Your task to perform on an android device: add a contact in the contacts app Image 0: 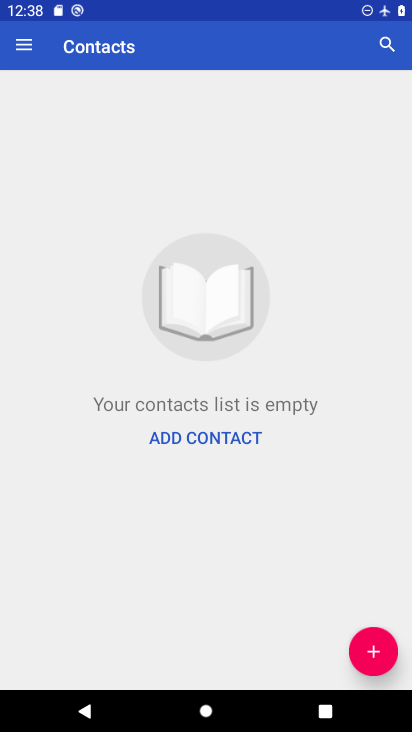
Step 0: click (374, 649)
Your task to perform on an android device: add a contact in the contacts app Image 1: 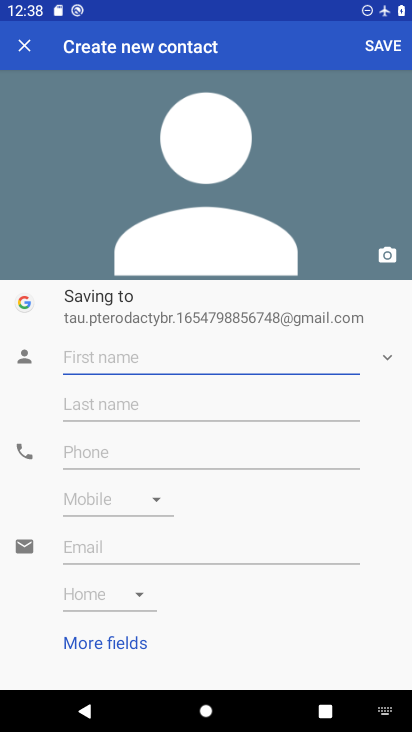
Step 1: type "fhdhshh"
Your task to perform on an android device: add a contact in the contacts app Image 2: 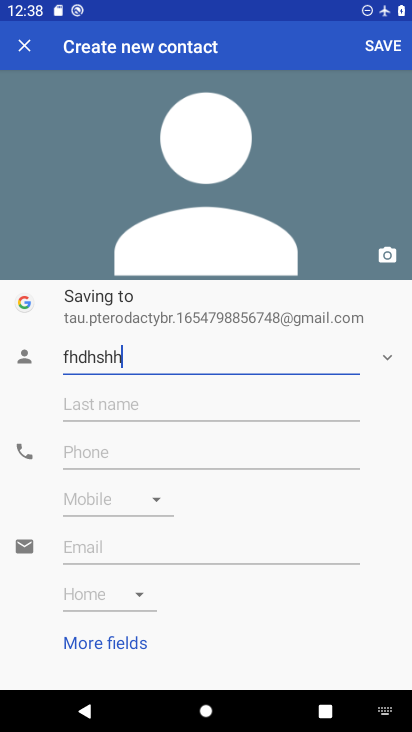
Step 2: click (120, 445)
Your task to perform on an android device: add a contact in the contacts app Image 3: 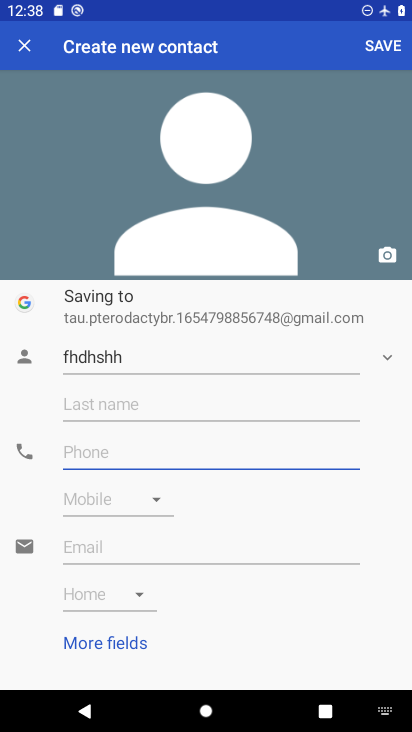
Step 3: type "78654566757"
Your task to perform on an android device: add a contact in the contacts app Image 4: 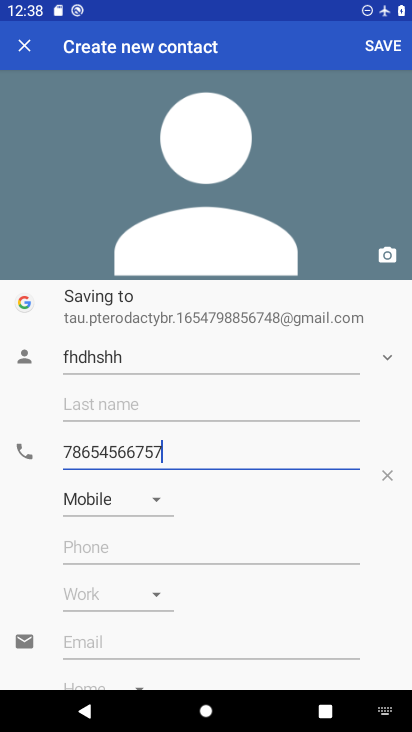
Step 4: click (381, 43)
Your task to perform on an android device: add a contact in the contacts app Image 5: 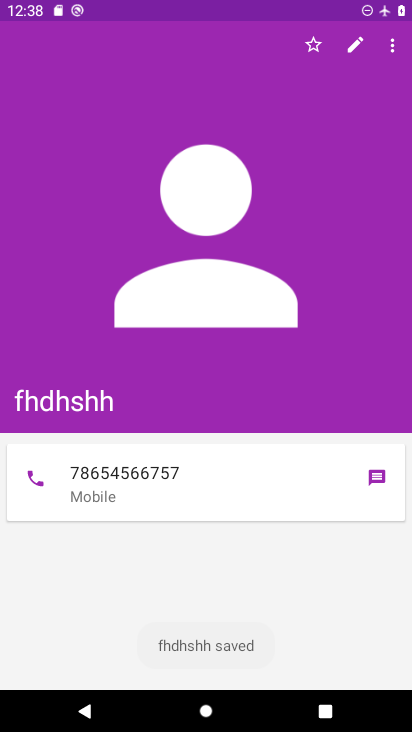
Step 5: task complete